Your task to perform on an android device: Open Google Maps Image 0: 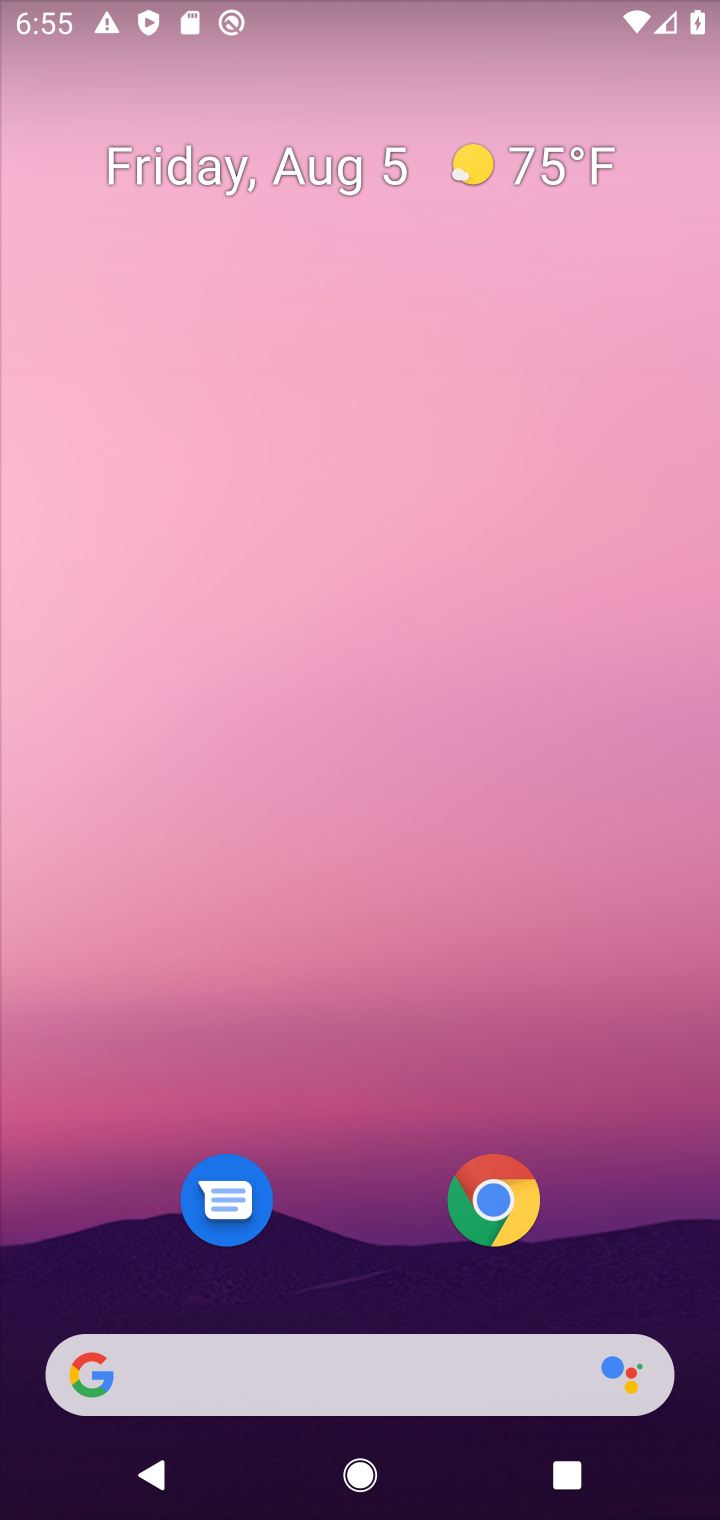
Step 0: drag from (577, 1067) to (490, 207)
Your task to perform on an android device: Open Google Maps Image 1: 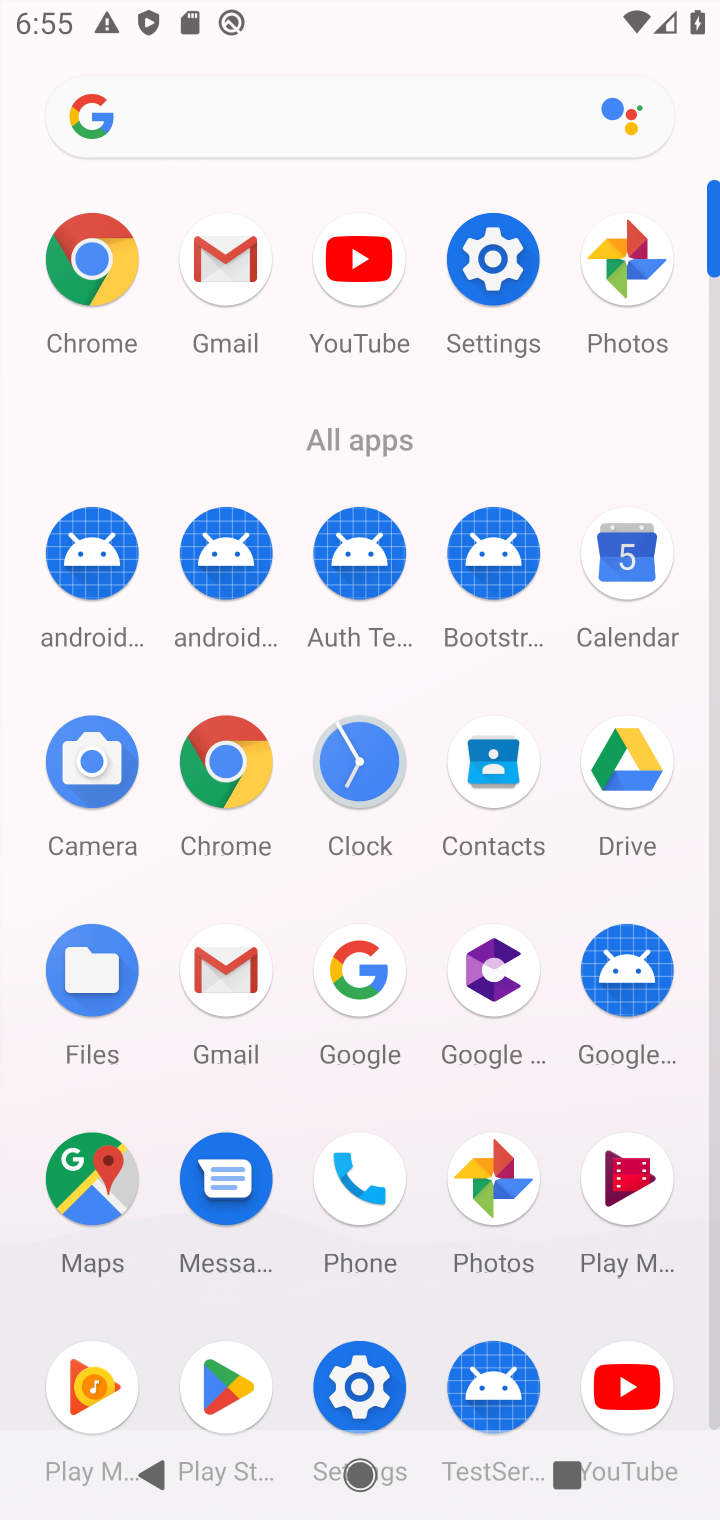
Step 1: click (106, 1169)
Your task to perform on an android device: Open Google Maps Image 2: 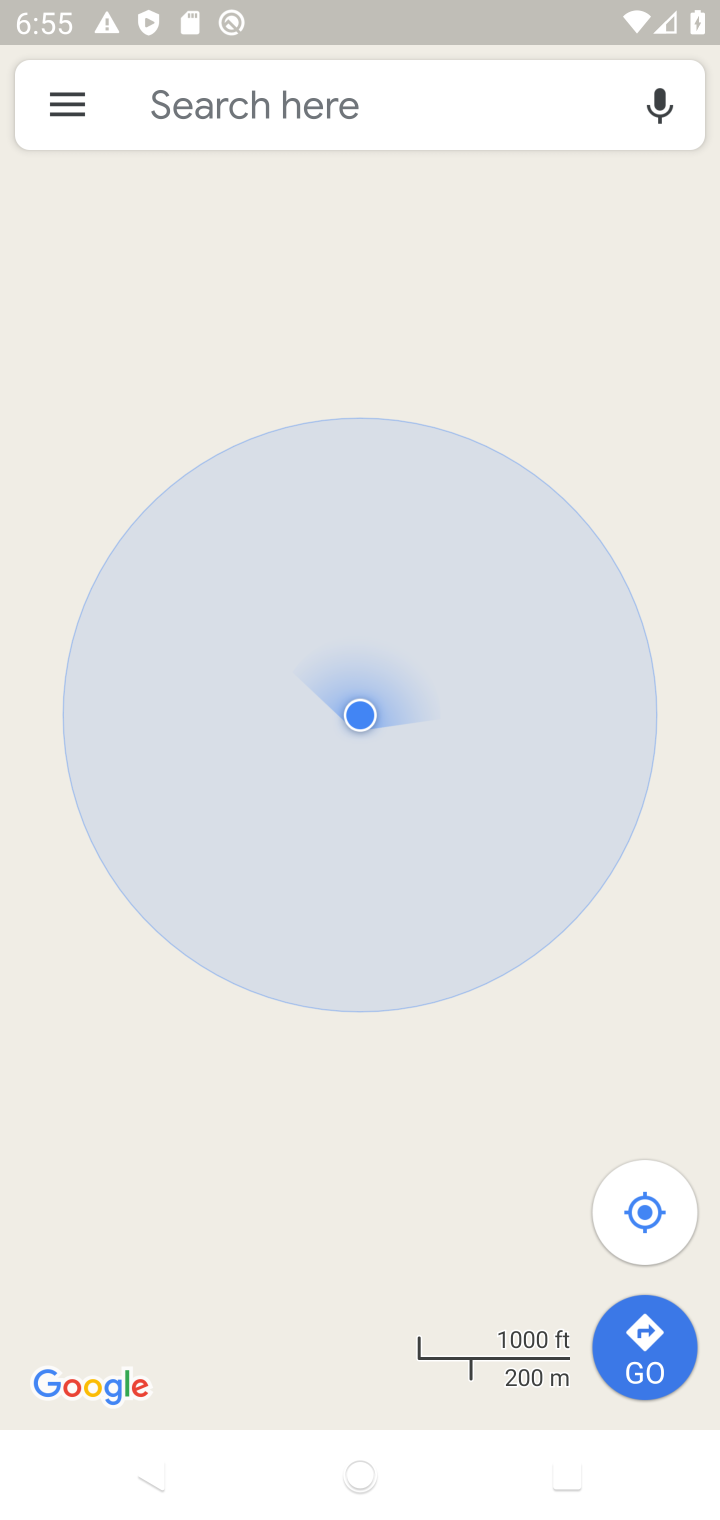
Step 2: task complete